Your task to perform on an android device: star an email in the gmail app Image 0: 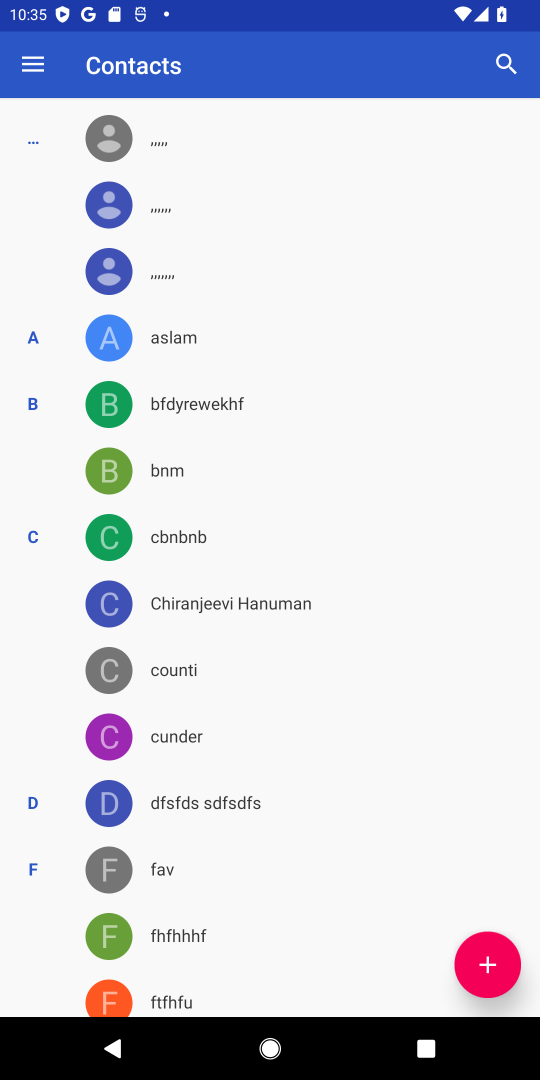
Step 0: press home button
Your task to perform on an android device: star an email in the gmail app Image 1: 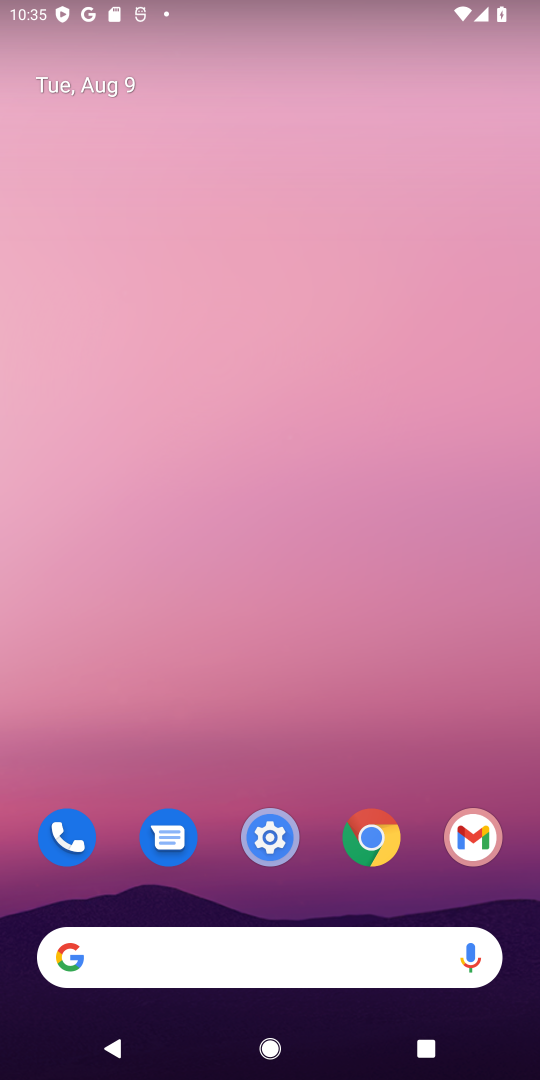
Step 1: drag from (327, 842) to (302, 344)
Your task to perform on an android device: star an email in the gmail app Image 2: 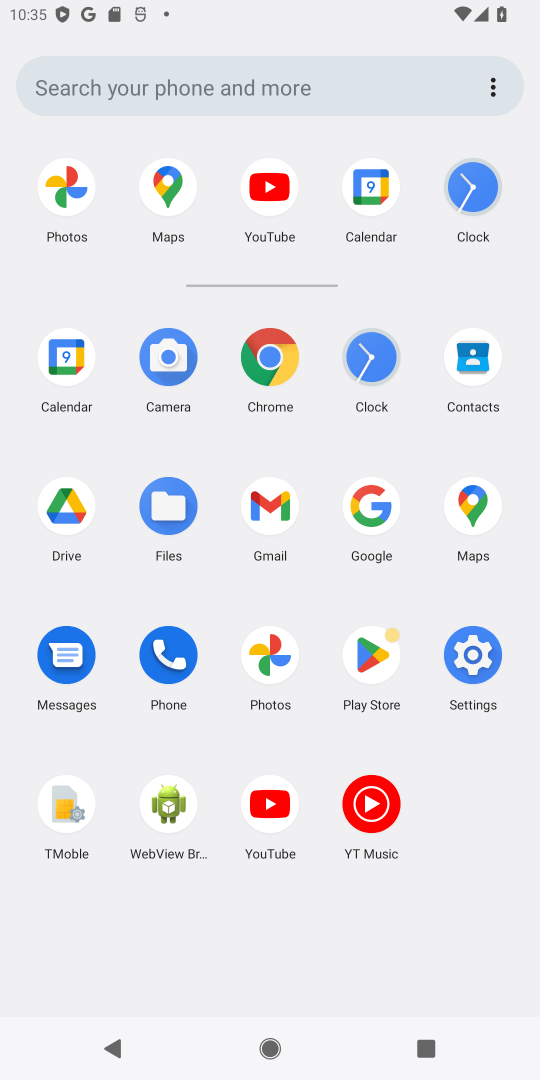
Step 2: click (274, 500)
Your task to perform on an android device: star an email in the gmail app Image 3: 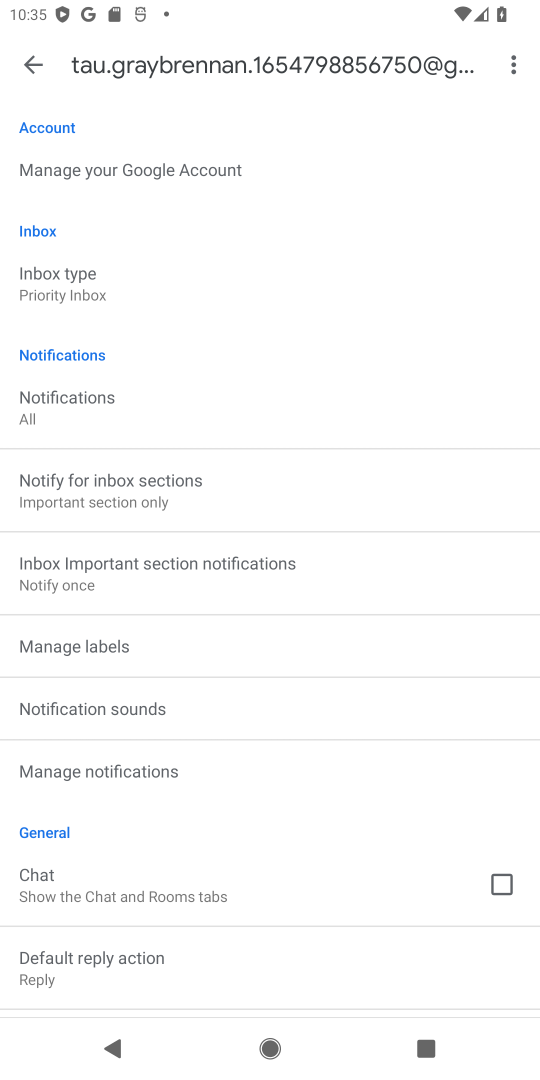
Step 3: click (34, 61)
Your task to perform on an android device: star an email in the gmail app Image 4: 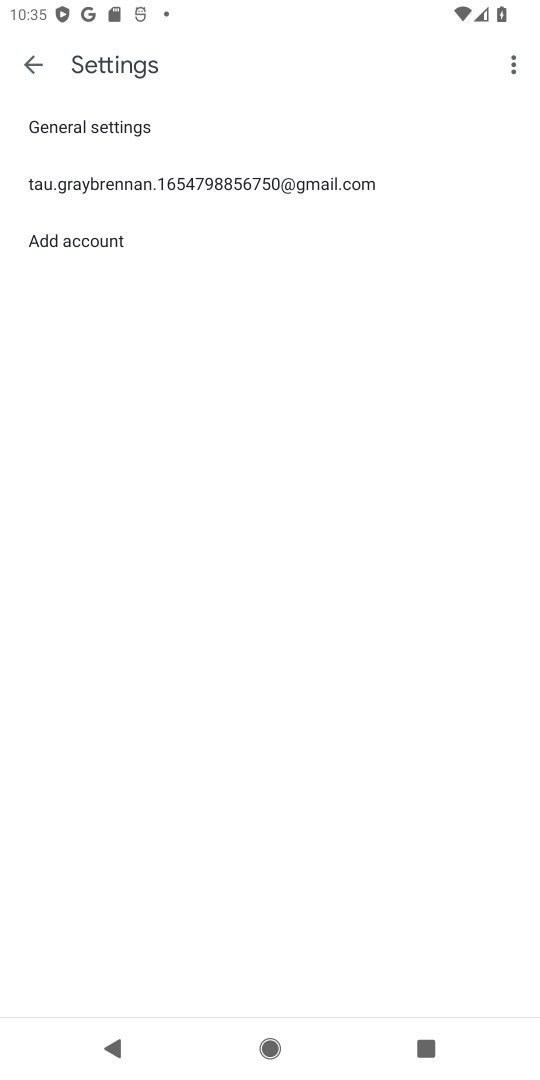
Step 4: click (37, 62)
Your task to perform on an android device: star an email in the gmail app Image 5: 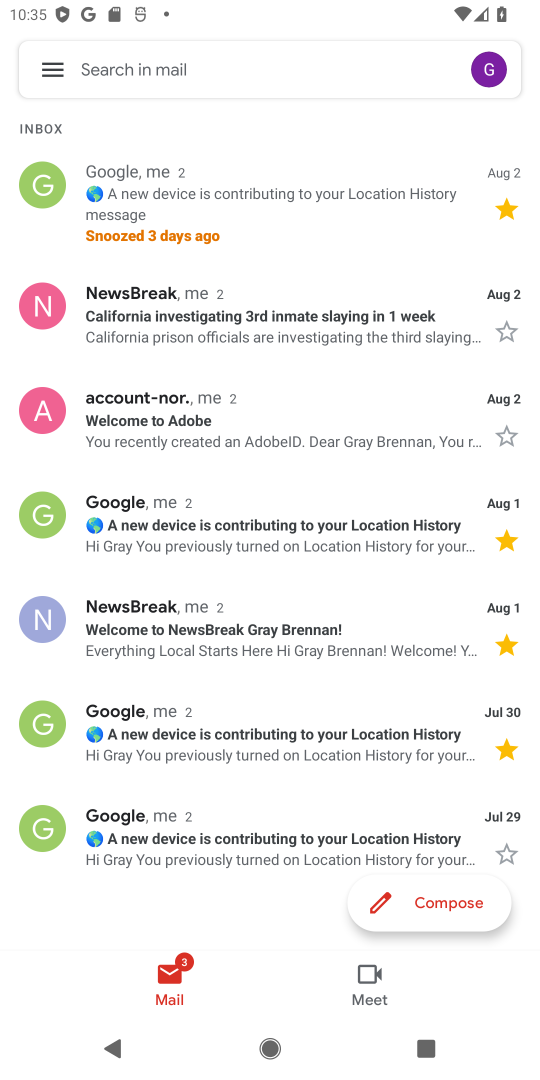
Step 5: click (509, 428)
Your task to perform on an android device: star an email in the gmail app Image 6: 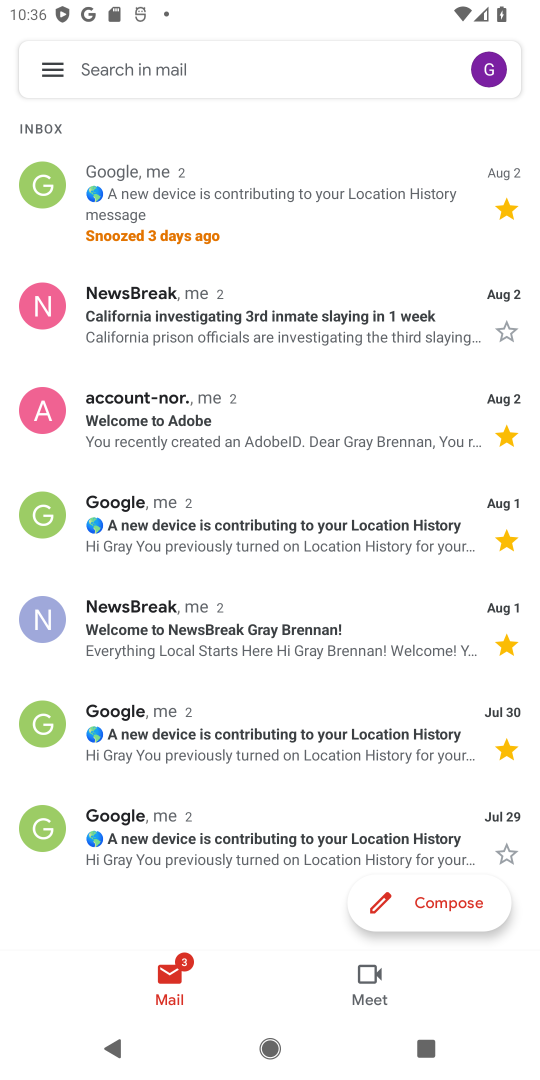
Step 6: click (509, 322)
Your task to perform on an android device: star an email in the gmail app Image 7: 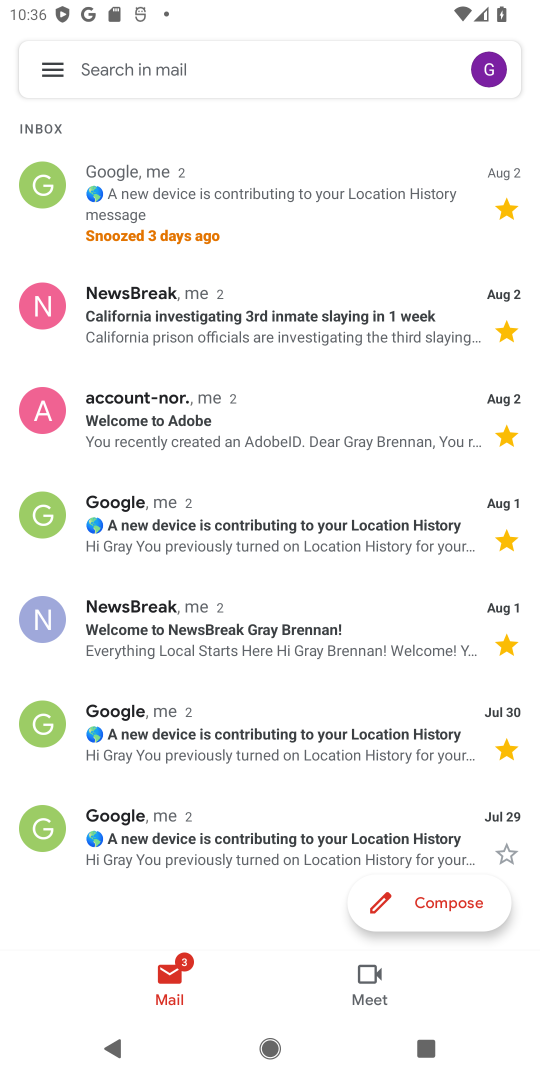
Step 7: task complete